Your task to perform on an android device: search for starred emails in the gmail app Image 0: 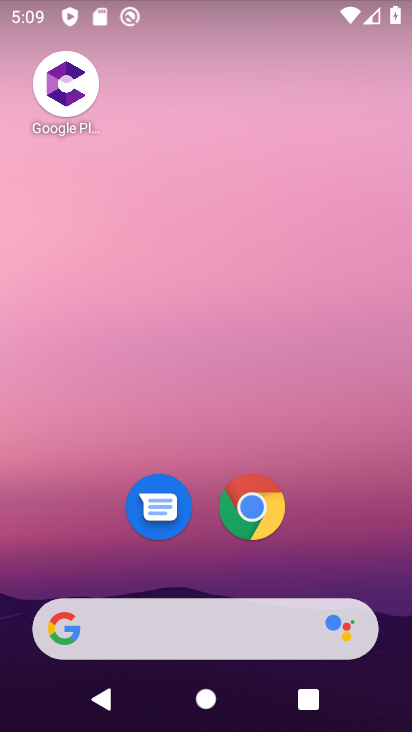
Step 0: drag from (341, 193) to (356, 6)
Your task to perform on an android device: search for starred emails in the gmail app Image 1: 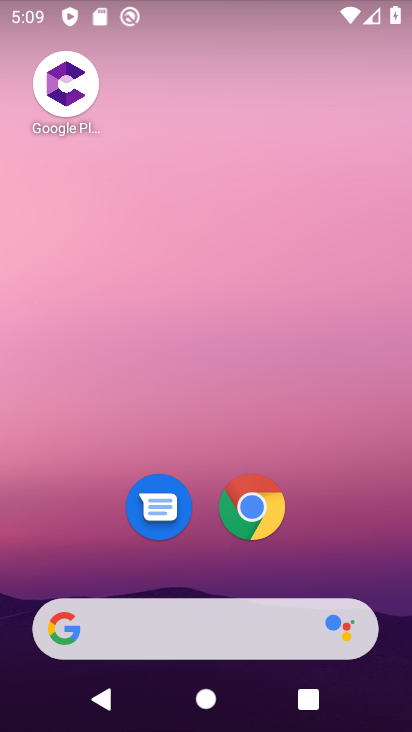
Step 1: drag from (326, 547) to (340, 1)
Your task to perform on an android device: search for starred emails in the gmail app Image 2: 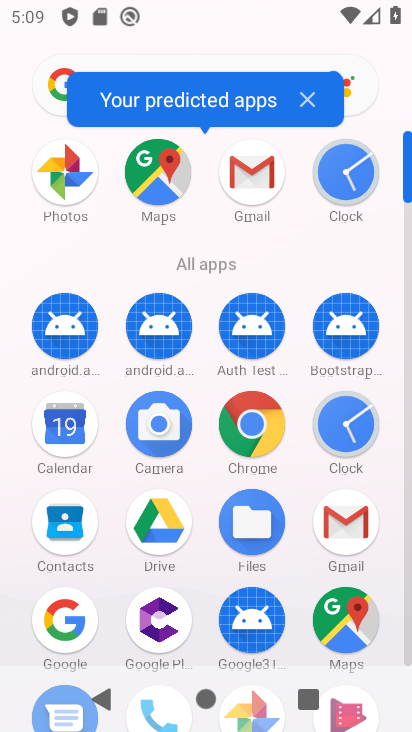
Step 2: click (256, 194)
Your task to perform on an android device: search for starred emails in the gmail app Image 3: 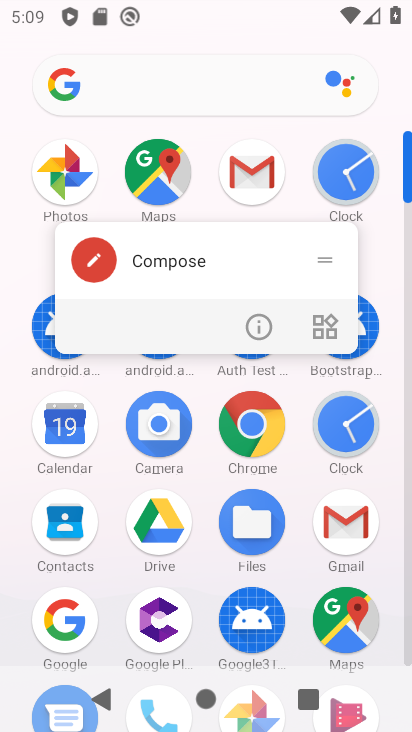
Step 3: click (259, 158)
Your task to perform on an android device: search for starred emails in the gmail app Image 4: 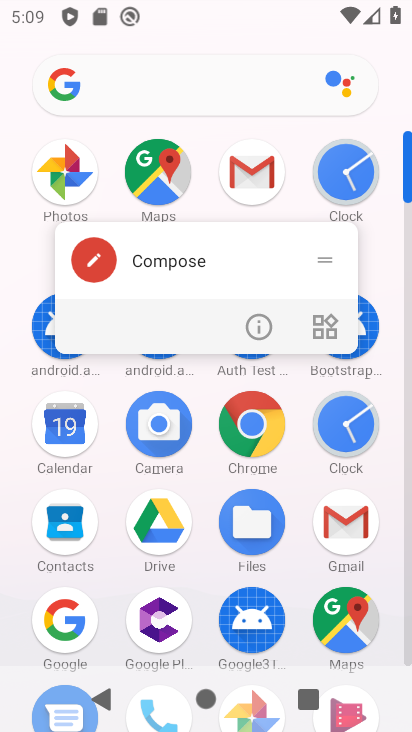
Step 4: click (238, 167)
Your task to perform on an android device: search for starred emails in the gmail app Image 5: 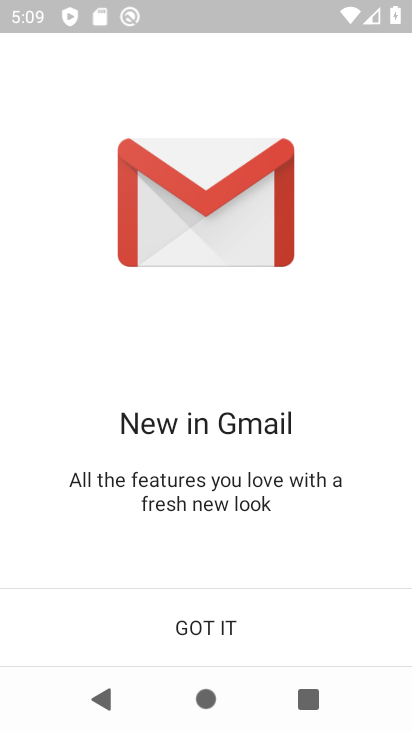
Step 5: click (237, 622)
Your task to perform on an android device: search for starred emails in the gmail app Image 6: 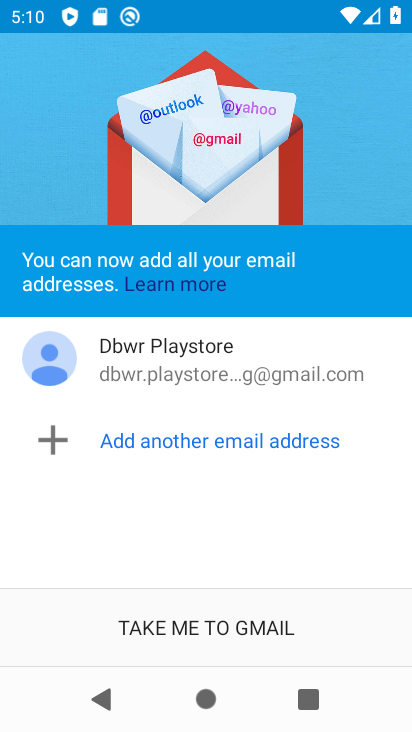
Step 6: click (217, 619)
Your task to perform on an android device: search for starred emails in the gmail app Image 7: 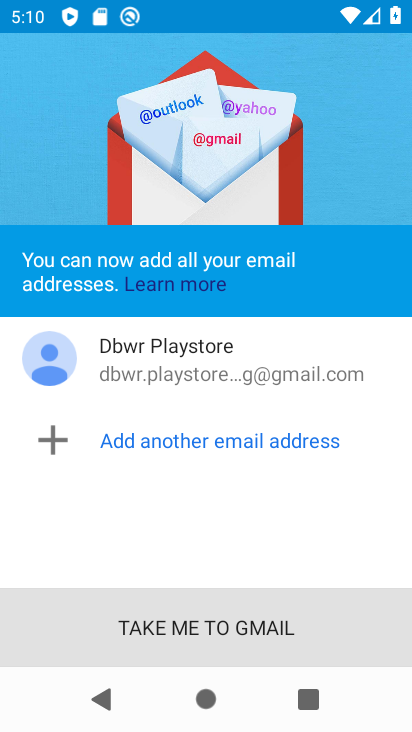
Step 7: click (279, 627)
Your task to perform on an android device: search for starred emails in the gmail app Image 8: 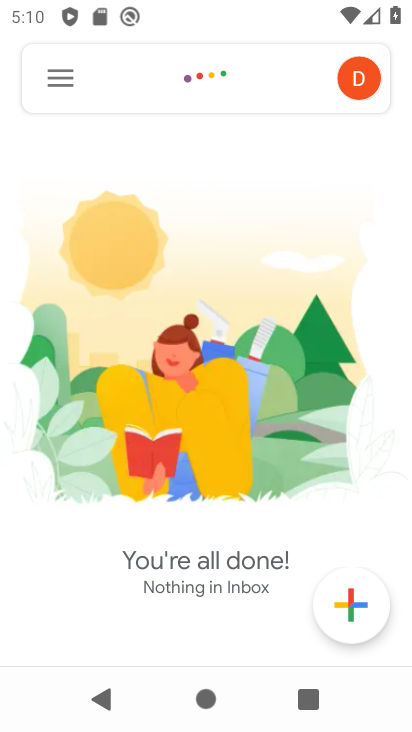
Step 8: click (73, 70)
Your task to perform on an android device: search for starred emails in the gmail app Image 9: 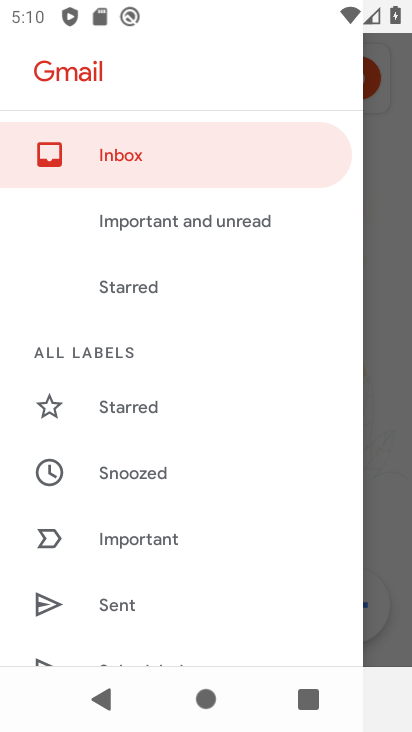
Step 9: click (154, 408)
Your task to perform on an android device: search for starred emails in the gmail app Image 10: 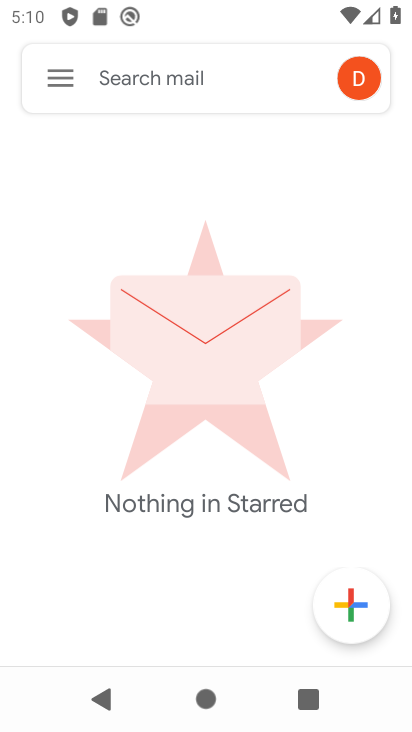
Step 10: task complete